Your task to perform on an android device: stop showing notifications on the lock screen Image 0: 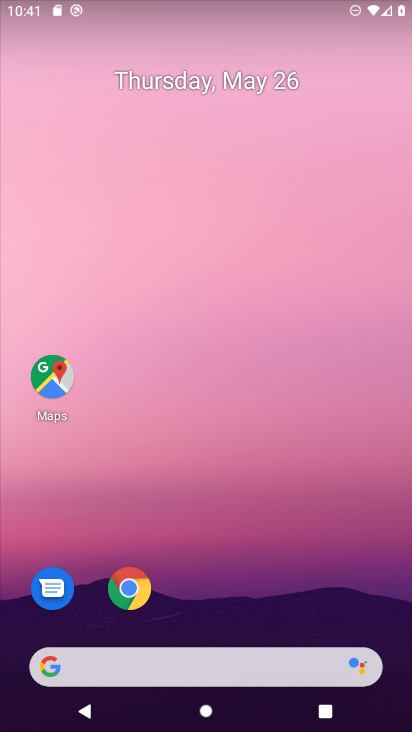
Step 0: drag from (398, 614) to (262, 3)
Your task to perform on an android device: stop showing notifications on the lock screen Image 1: 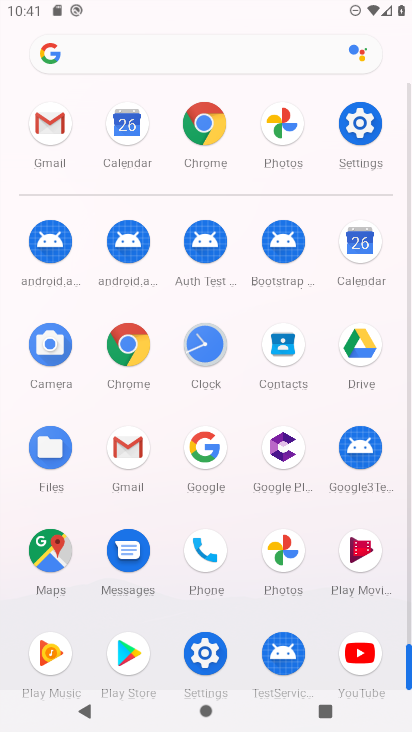
Step 1: click (202, 648)
Your task to perform on an android device: stop showing notifications on the lock screen Image 2: 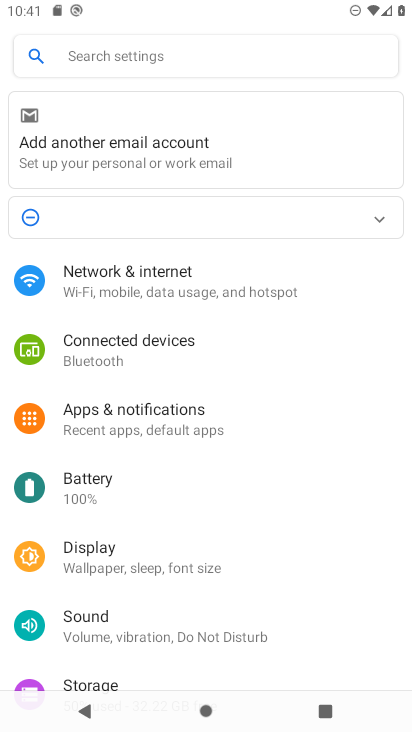
Step 2: click (112, 408)
Your task to perform on an android device: stop showing notifications on the lock screen Image 3: 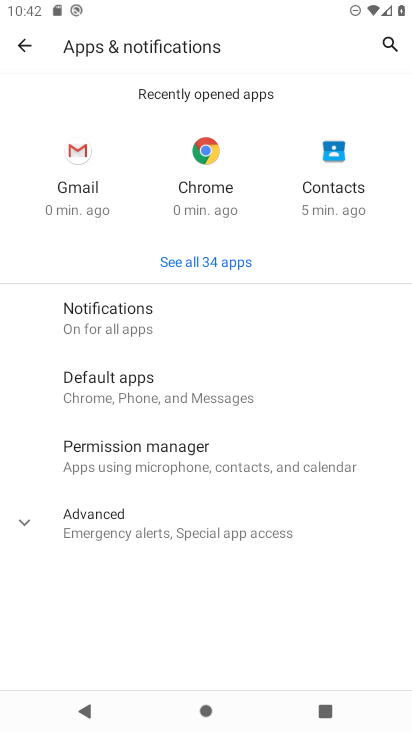
Step 3: click (106, 316)
Your task to perform on an android device: stop showing notifications on the lock screen Image 4: 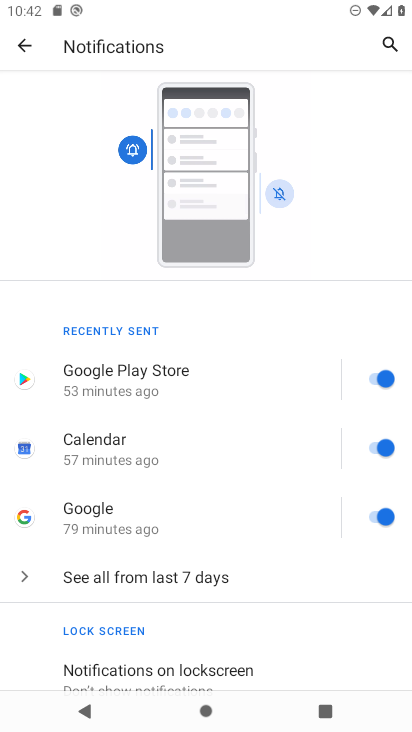
Step 4: drag from (237, 623) to (258, 200)
Your task to perform on an android device: stop showing notifications on the lock screen Image 5: 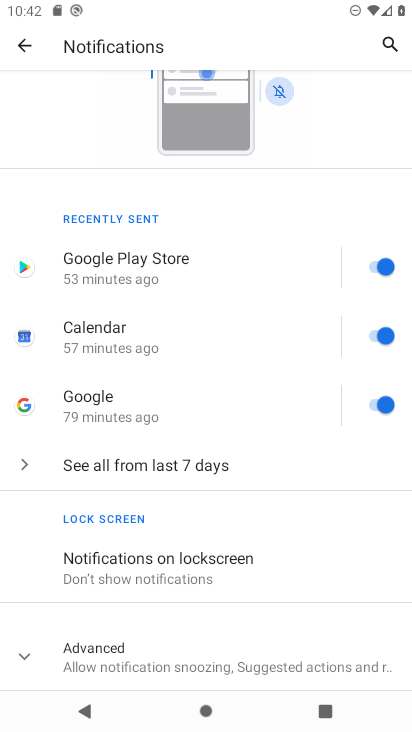
Step 5: click (171, 548)
Your task to perform on an android device: stop showing notifications on the lock screen Image 6: 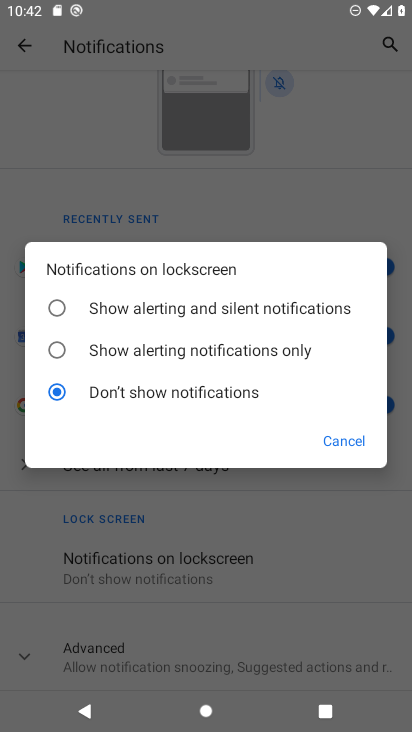
Step 6: task complete